Your task to perform on an android device: Open the map Image 0: 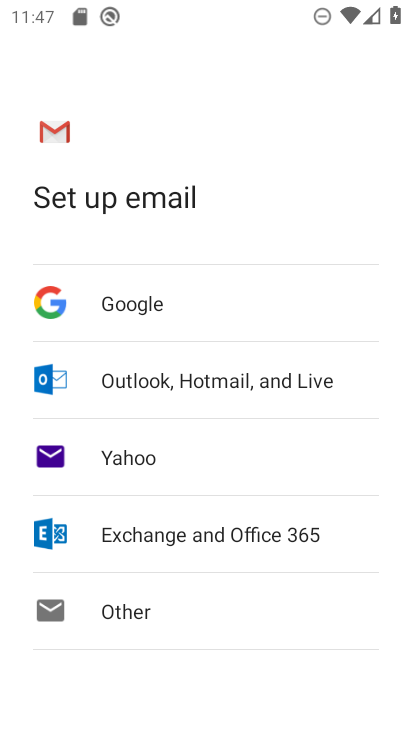
Step 0: press home button
Your task to perform on an android device: Open the map Image 1: 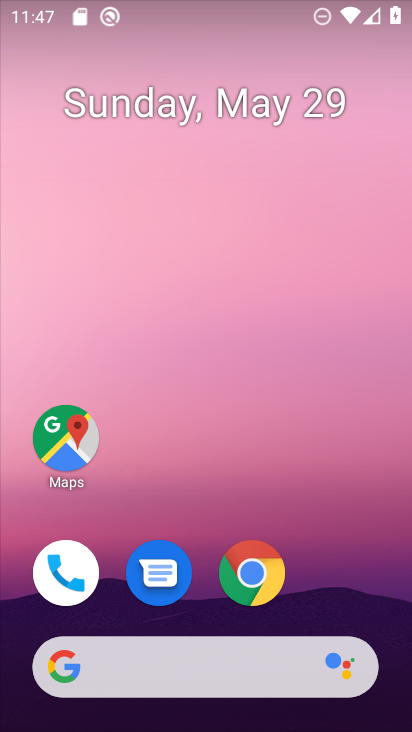
Step 1: click (65, 442)
Your task to perform on an android device: Open the map Image 2: 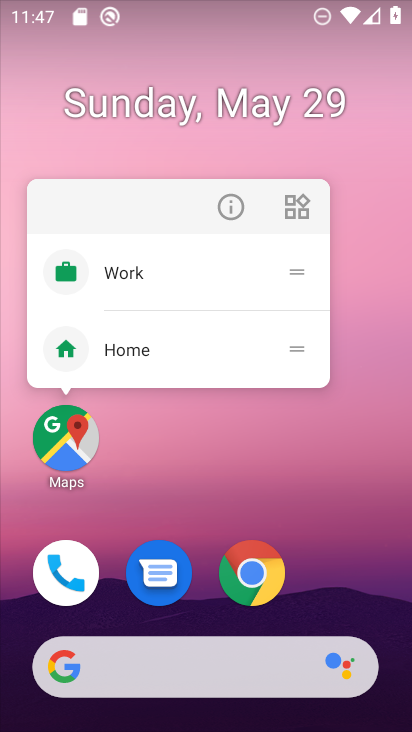
Step 2: click (28, 450)
Your task to perform on an android device: Open the map Image 3: 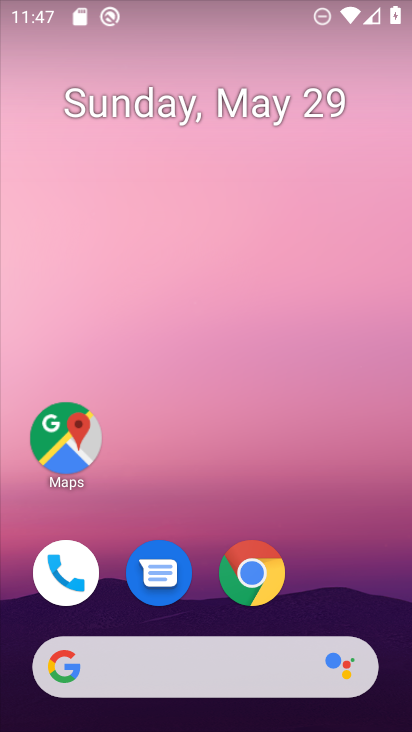
Step 3: click (44, 441)
Your task to perform on an android device: Open the map Image 4: 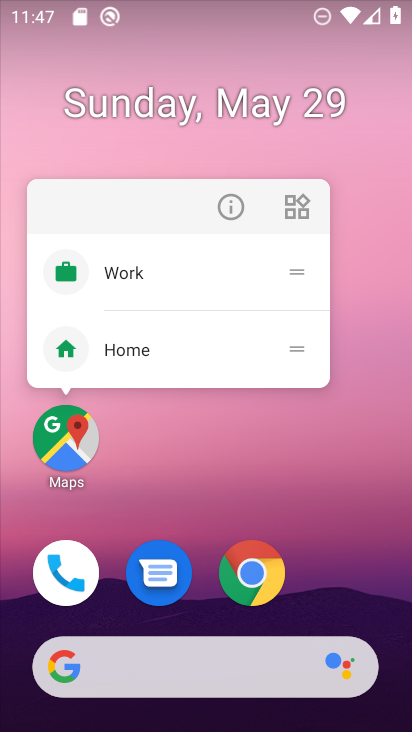
Step 4: click (44, 441)
Your task to perform on an android device: Open the map Image 5: 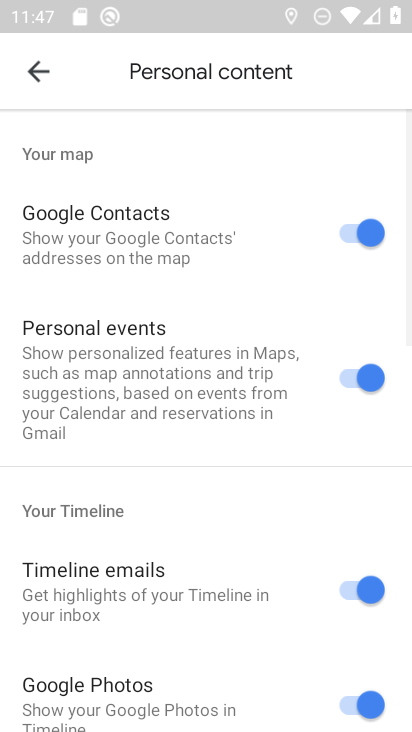
Step 5: task complete